Your task to perform on an android device: snooze an email in the gmail app Image 0: 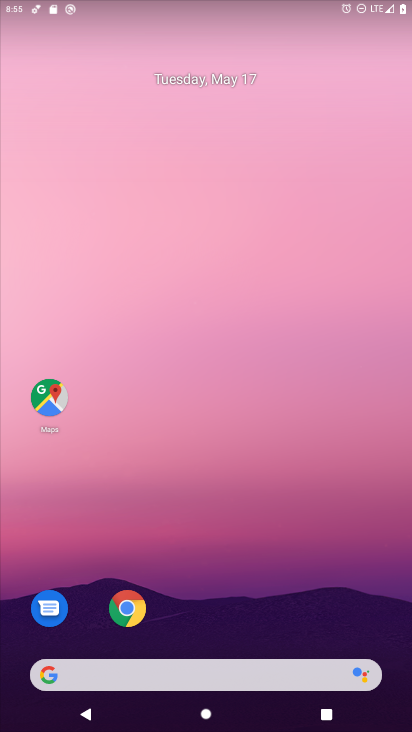
Step 0: drag from (208, 601) to (278, 92)
Your task to perform on an android device: snooze an email in the gmail app Image 1: 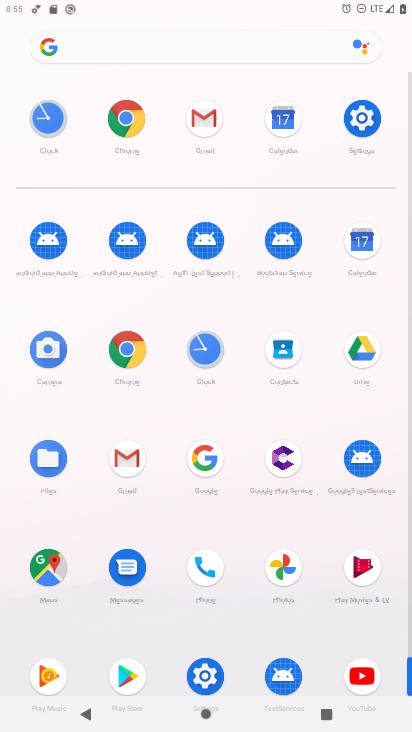
Step 1: click (132, 461)
Your task to perform on an android device: snooze an email in the gmail app Image 2: 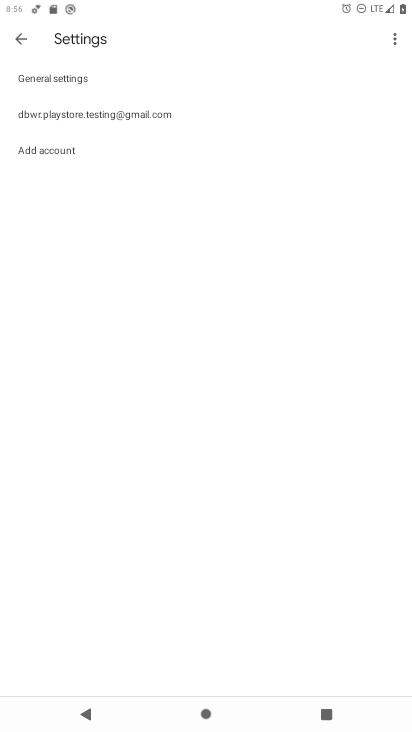
Step 2: click (18, 39)
Your task to perform on an android device: snooze an email in the gmail app Image 3: 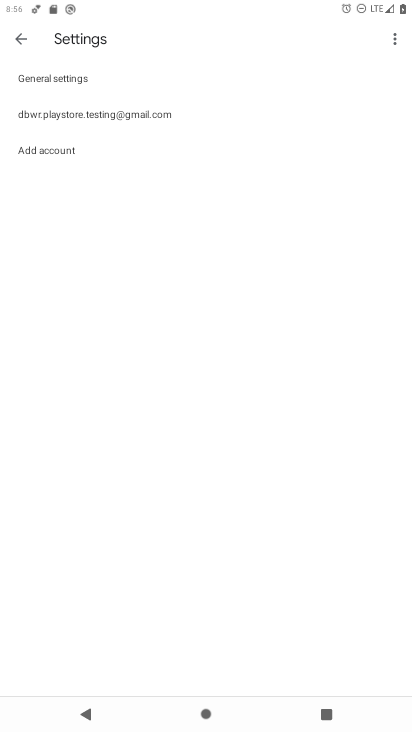
Step 3: click (17, 39)
Your task to perform on an android device: snooze an email in the gmail app Image 4: 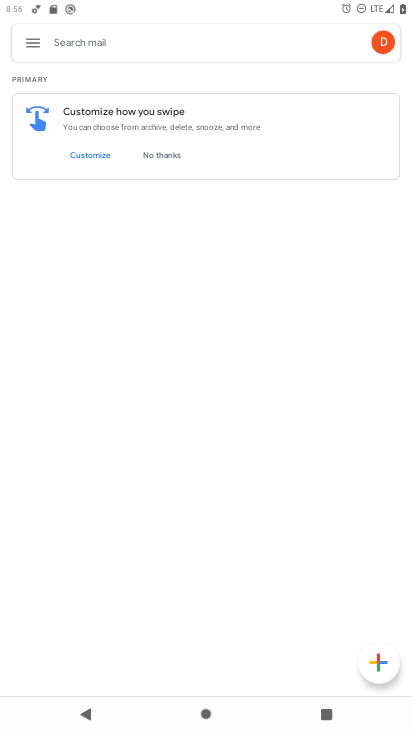
Step 4: click (26, 35)
Your task to perform on an android device: snooze an email in the gmail app Image 5: 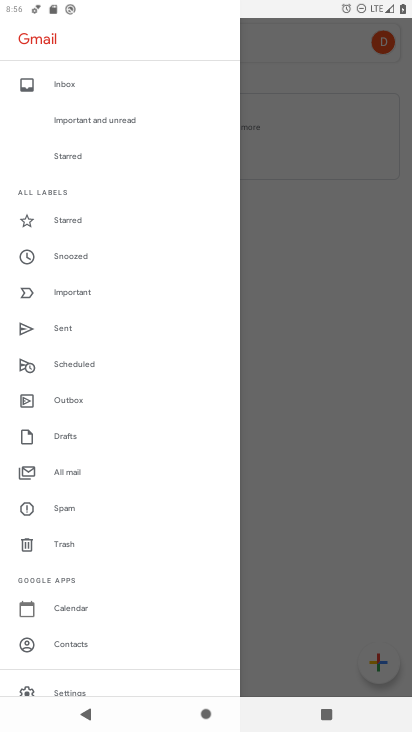
Step 5: click (95, 466)
Your task to perform on an android device: snooze an email in the gmail app Image 6: 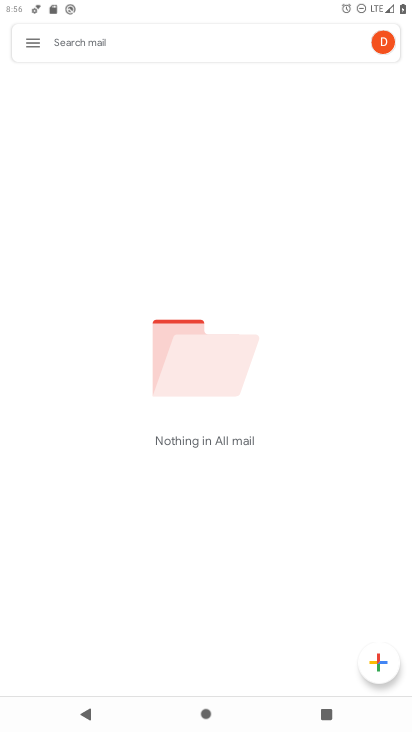
Step 6: task complete